Your task to perform on an android device: Open battery settings Image 0: 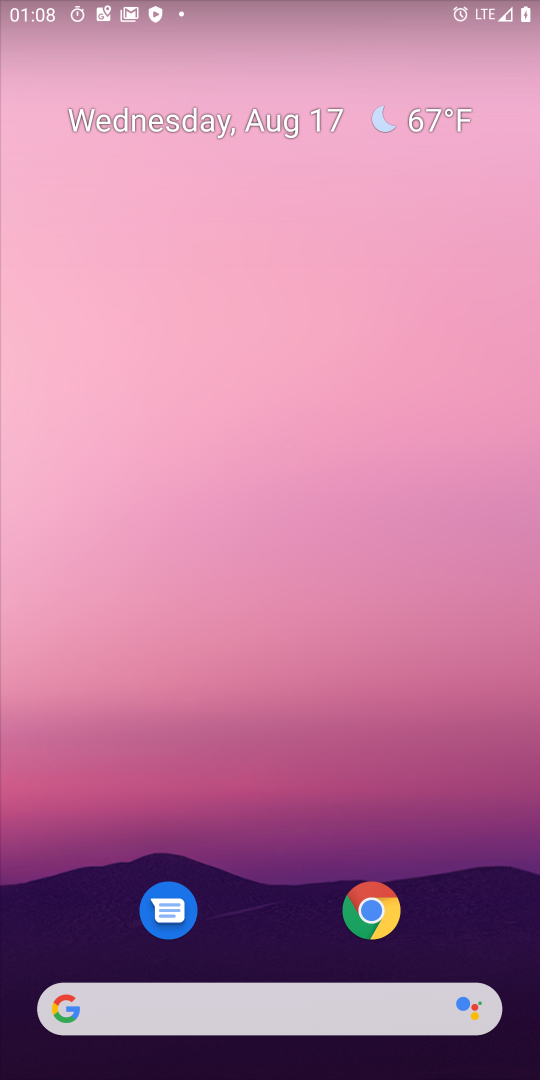
Step 0: drag from (254, 868) to (249, 58)
Your task to perform on an android device: Open battery settings Image 1: 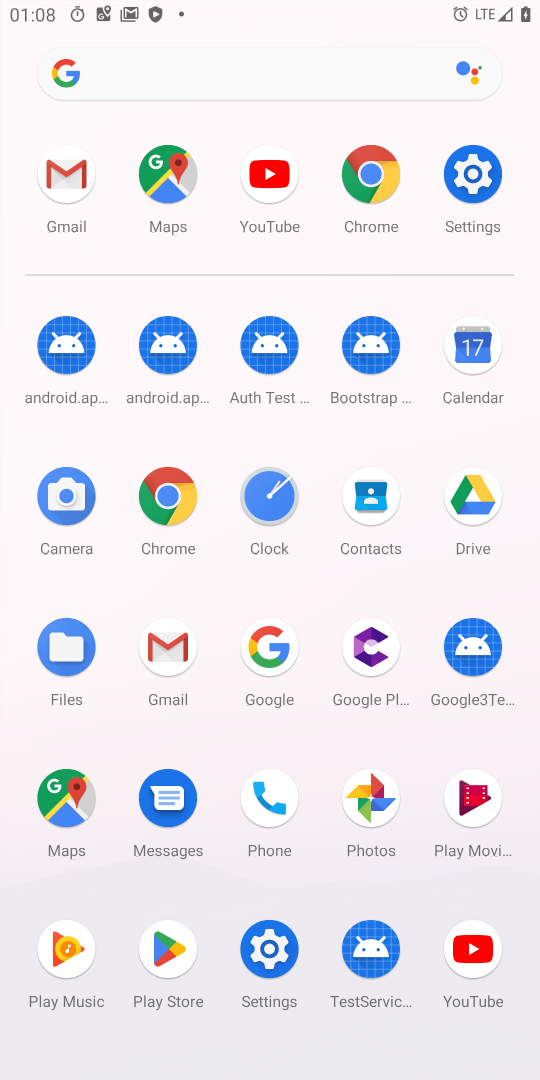
Step 1: click (260, 938)
Your task to perform on an android device: Open battery settings Image 2: 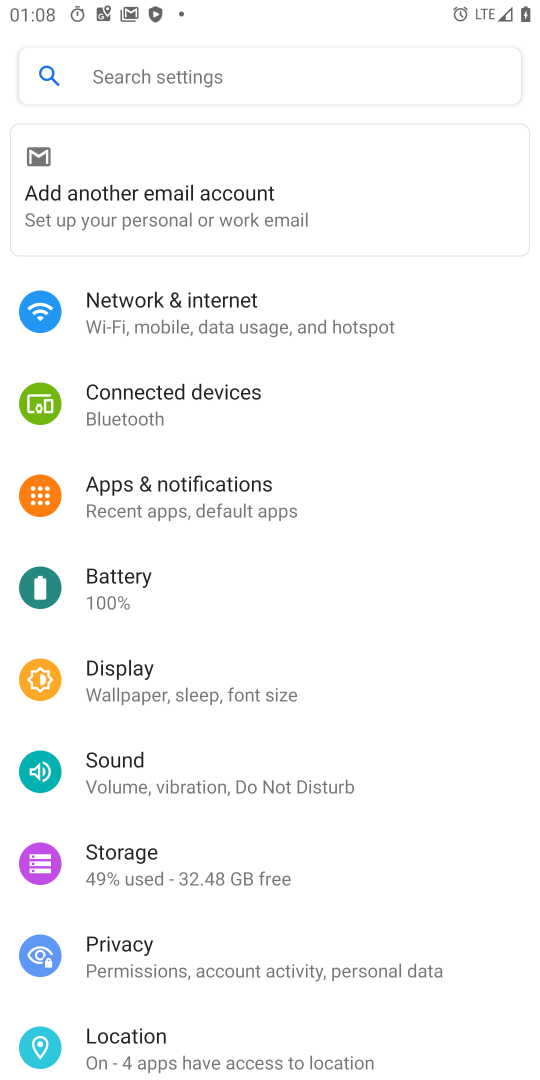
Step 2: click (105, 602)
Your task to perform on an android device: Open battery settings Image 3: 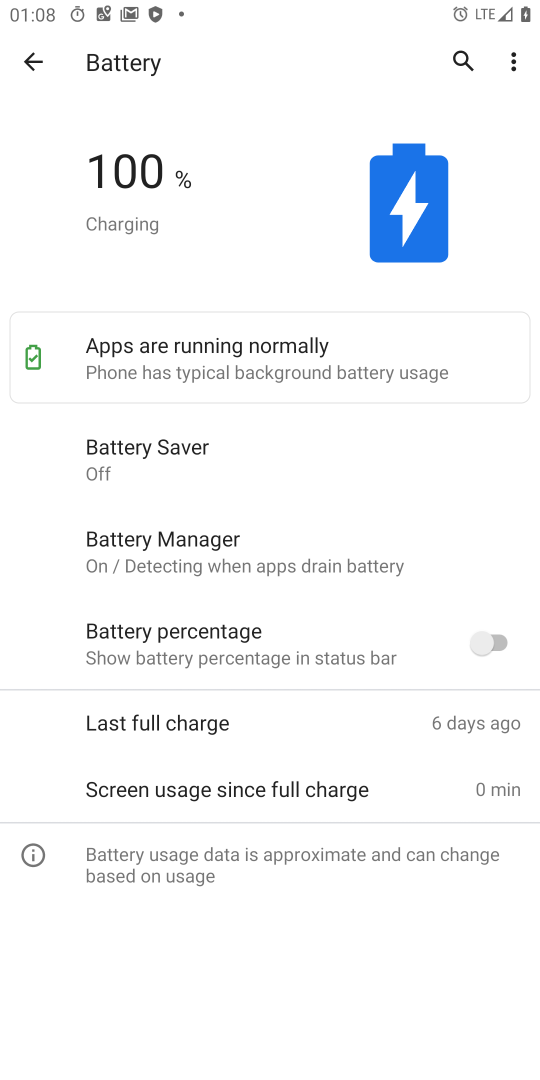
Step 3: task complete